Your task to perform on an android device: Open the web browser Image 0: 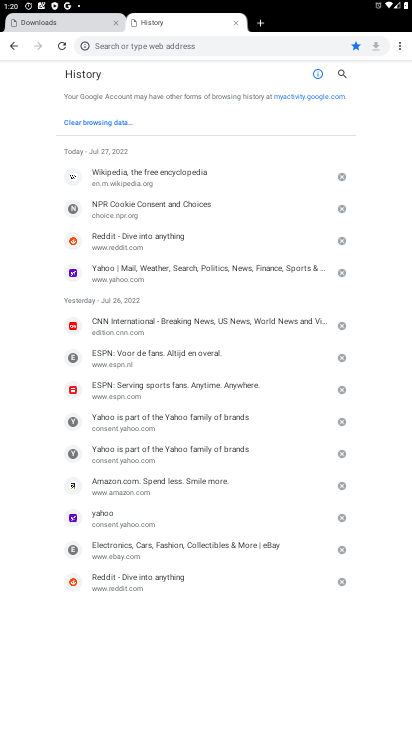
Step 0: press home button
Your task to perform on an android device: Open the web browser Image 1: 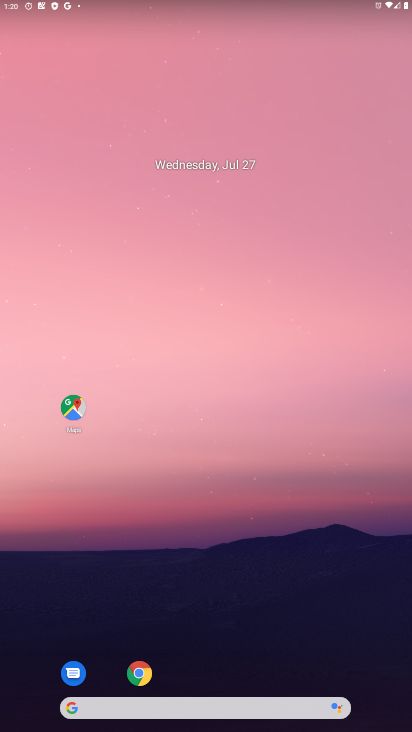
Step 1: click (142, 674)
Your task to perform on an android device: Open the web browser Image 2: 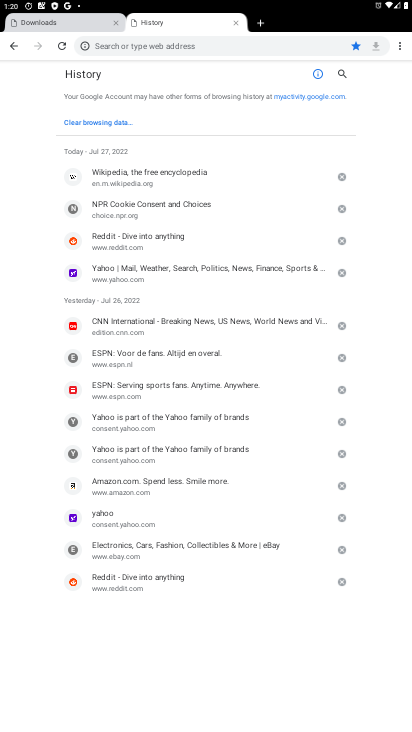
Step 2: task complete